Your task to perform on an android device: Open the calendar app, open the side menu, and click the "Day" option Image 0: 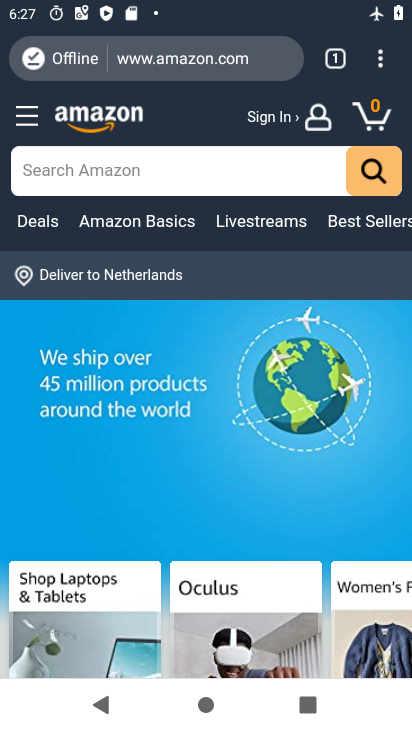
Step 0: drag from (298, 570) to (345, 59)
Your task to perform on an android device: Open the calendar app, open the side menu, and click the "Day" option Image 1: 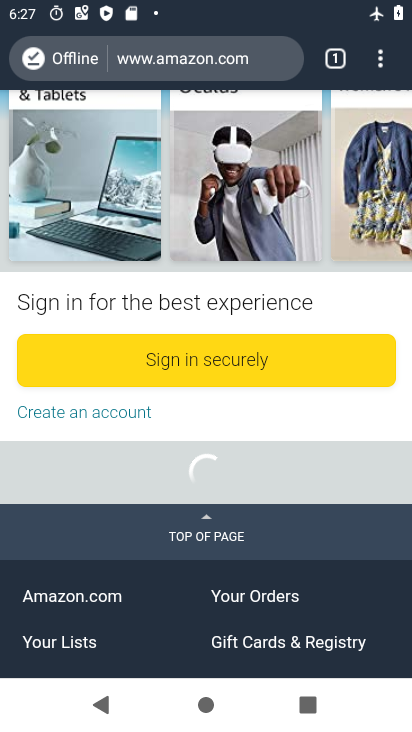
Step 1: press home button
Your task to perform on an android device: Open the calendar app, open the side menu, and click the "Day" option Image 2: 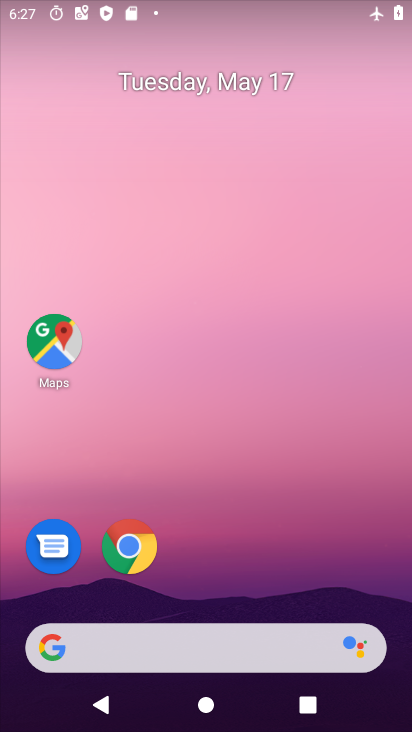
Step 2: drag from (217, 458) to (237, 78)
Your task to perform on an android device: Open the calendar app, open the side menu, and click the "Day" option Image 3: 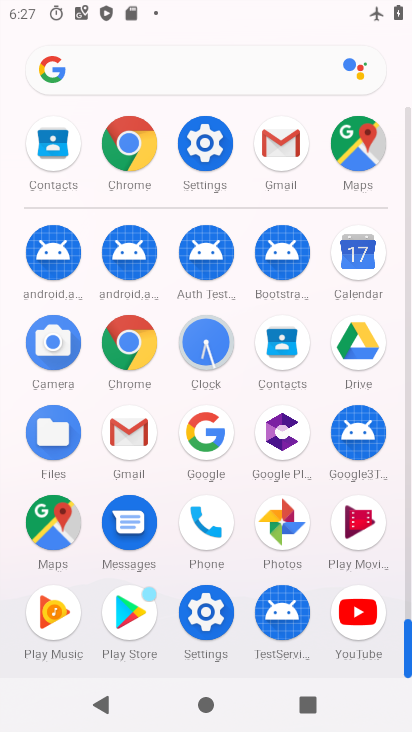
Step 3: click (365, 284)
Your task to perform on an android device: Open the calendar app, open the side menu, and click the "Day" option Image 4: 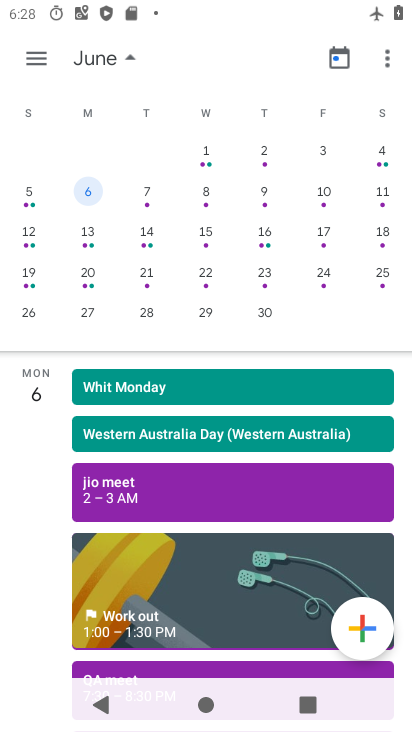
Step 4: click (43, 48)
Your task to perform on an android device: Open the calendar app, open the side menu, and click the "Day" option Image 5: 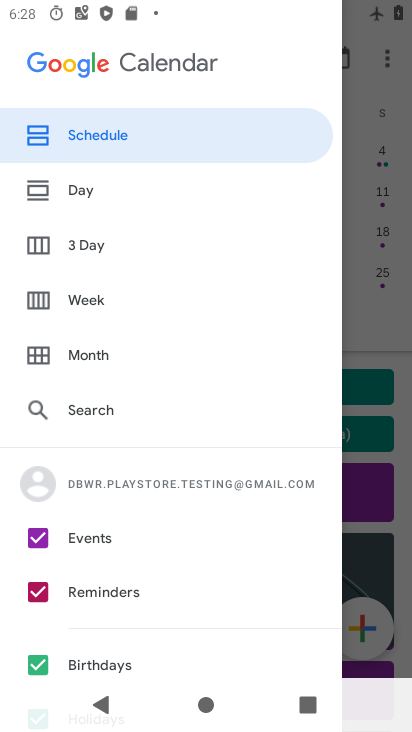
Step 5: click (91, 199)
Your task to perform on an android device: Open the calendar app, open the side menu, and click the "Day" option Image 6: 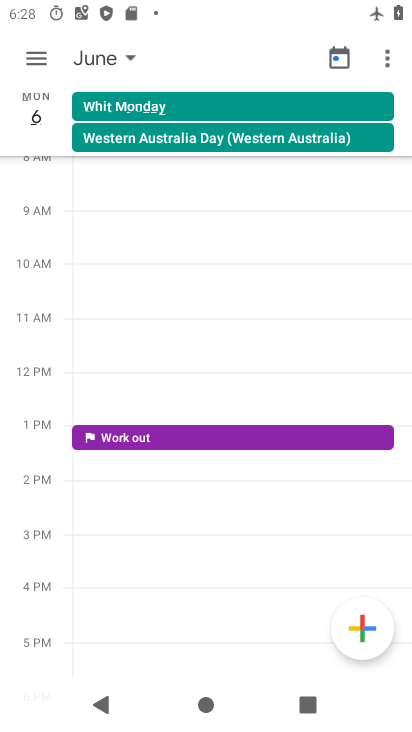
Step 6: task complete